Your task to perform on an android device: What's on my calendar today? Image 0: 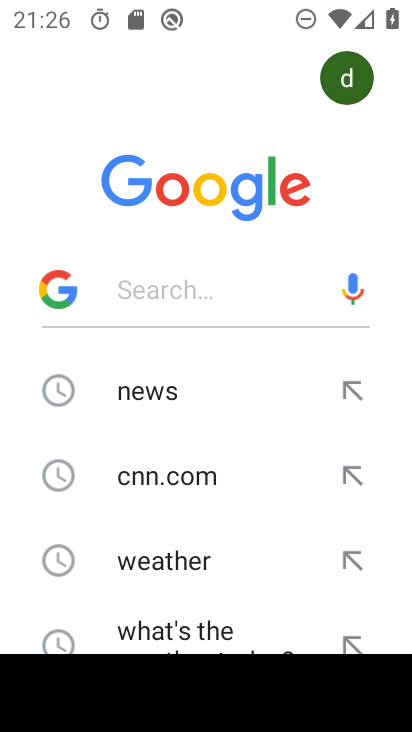
Step 0: press home button
Your task to perform on an android device: What's on my calendar today? Image 1: 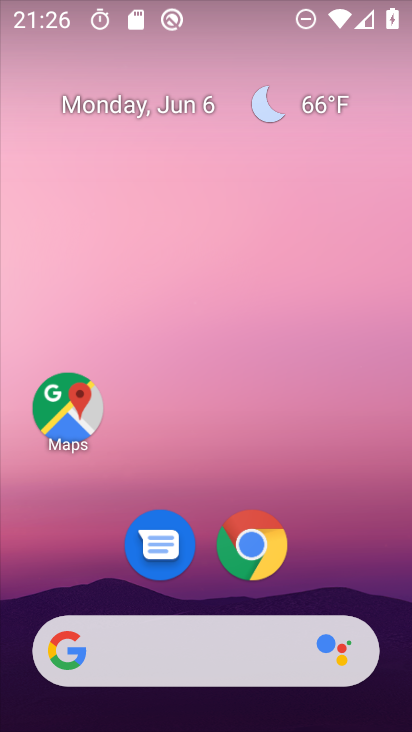
Step 1: drag from (213, 595) to (239, 280)
Your task to perform on an android device: What's on my calendar today? Image 2: 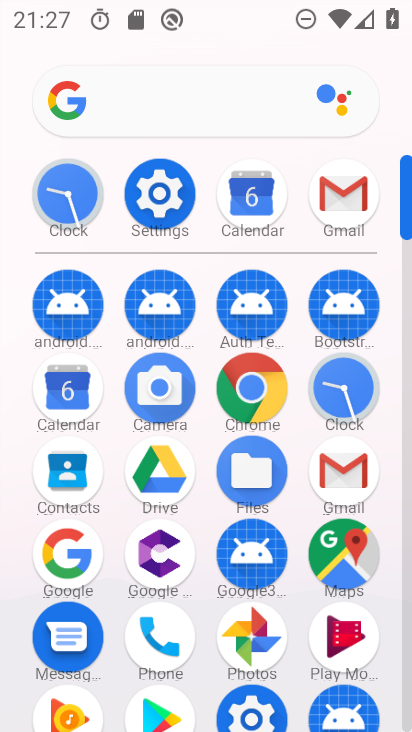
Step 2: click (70, 397)
Your task to perform on an android device: What's on my calendar today? Image 3: 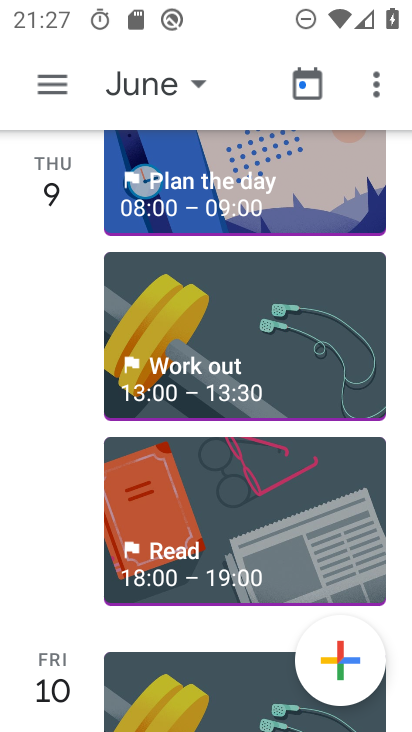
Step 3: click (58, 79)
Your task to perform on an android device: What's on my calendar today? Image 4: 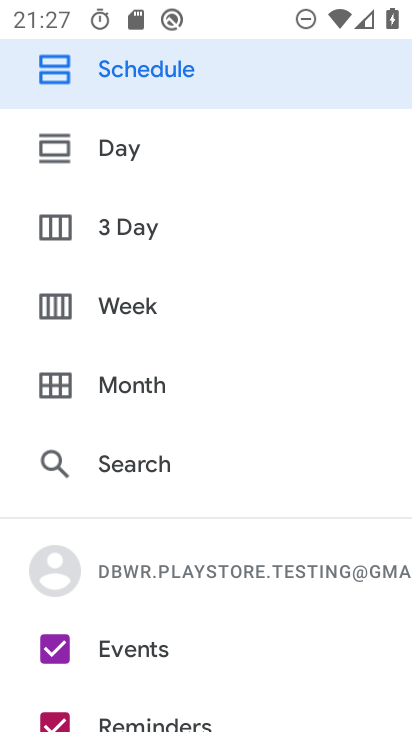
Step 4: drag from (120, 570) to (127, 445)
Your task to perform on an android device: What's on my calendar today? Image 5: 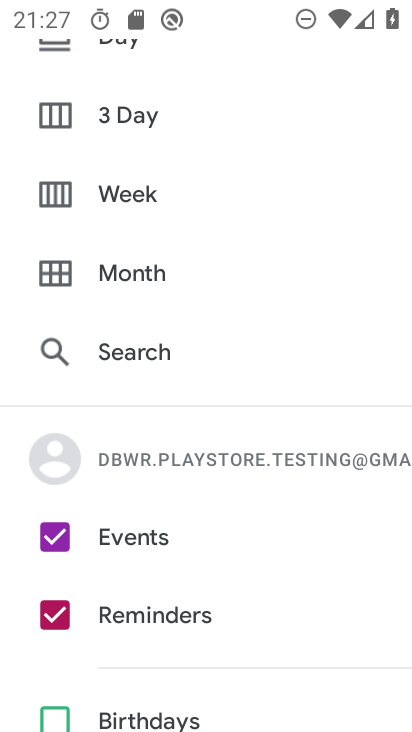
Step 5: click (77, 717)
Your task to perform on an android device: What's on my calendar today? Image 6: 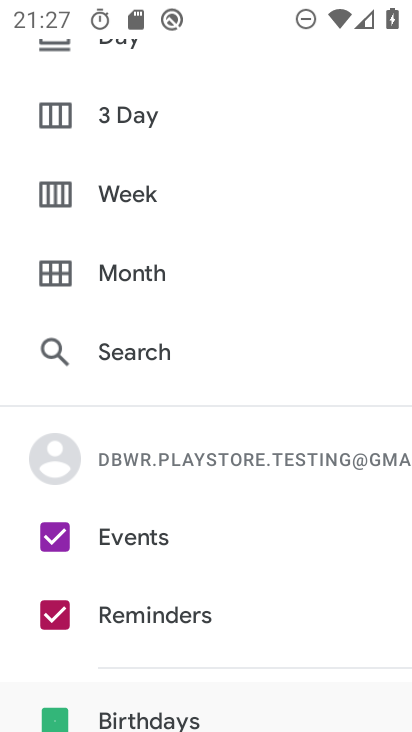
Step 6: drag from (77, 713) to (161, 435)
Your task to perform on an android device: What's on my calendar today? Image 7: 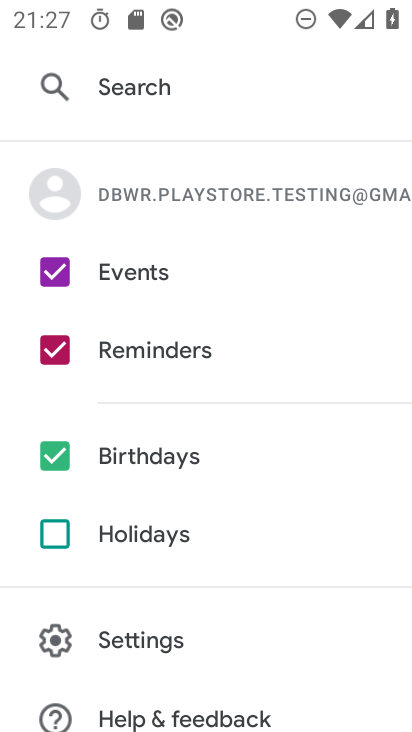
Step 7: click (106, 527)
Your task to perform on an android device: What's on my calendar today? Image 8: 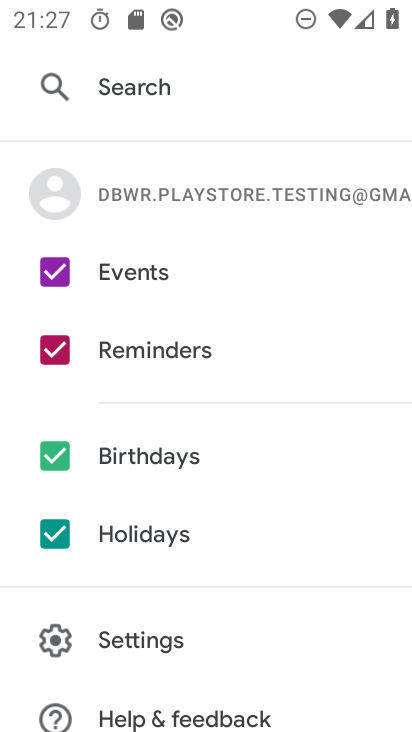
Step 8: drag from (182, 248) to (179, 668)
Your task to perform on an android device: What's on my calendar today? Image 9: 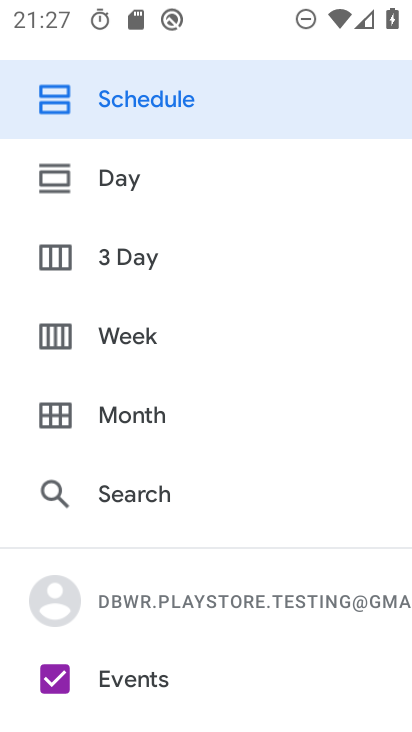
Step 9: click (125, 173)
Your task to perform on an android device: What's on my calendar today? Image 10: 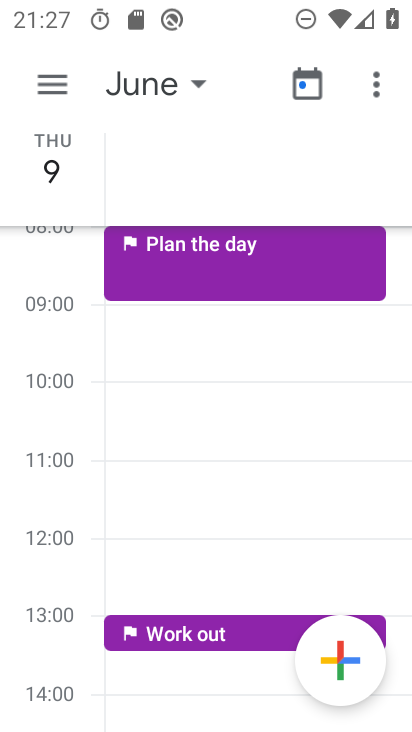
Step 10: task complete